Your task to perform on an android device: add a label to a message in the gmail app Image 0: 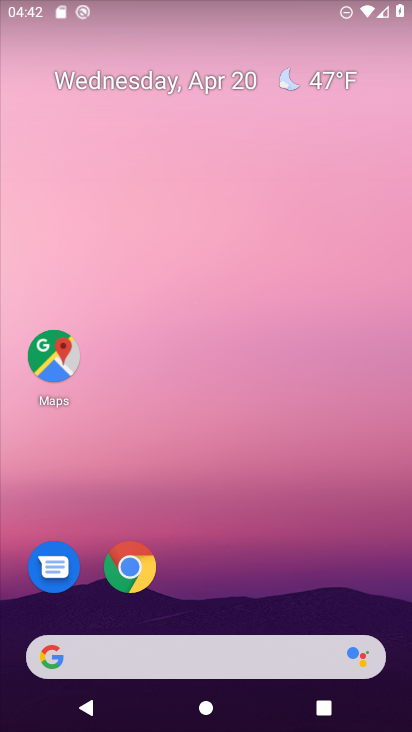
Step 0: drag from (191, 605) to (188, 86)
Your task to perform on an android device: add a label to a message in the gmail app Image 1: 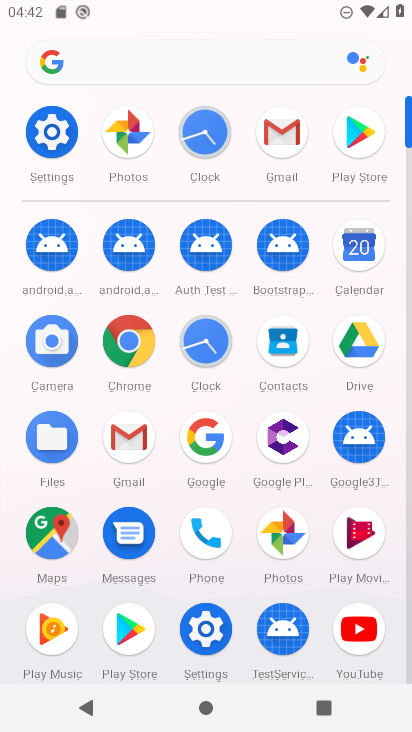
Step 1: click (141, 491)
Your task to perform on an android device: add a label to a message in the gmail app Image 2: 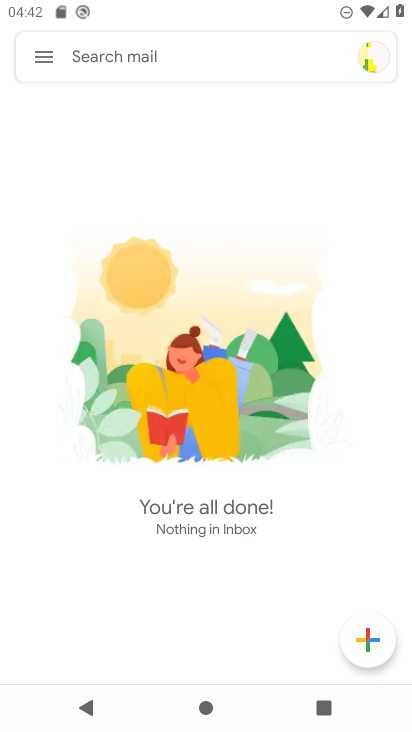
Step 2: task complete